Your task to perform on an android device: check android version Image 0: 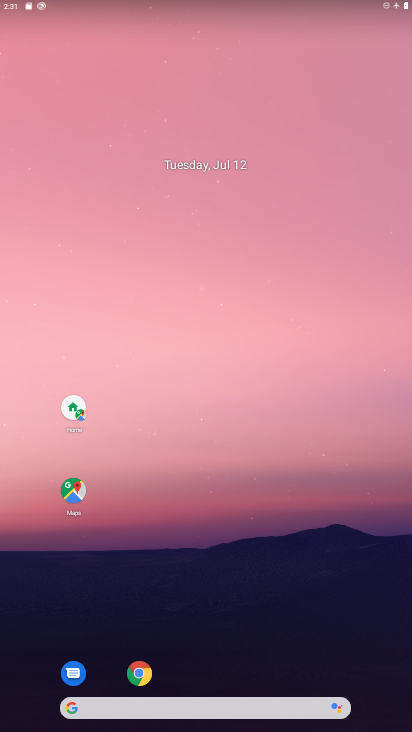
Step 0: drag from (232, 632) to (248, 279)
Your task to perform on an android device: check android version Image 1: 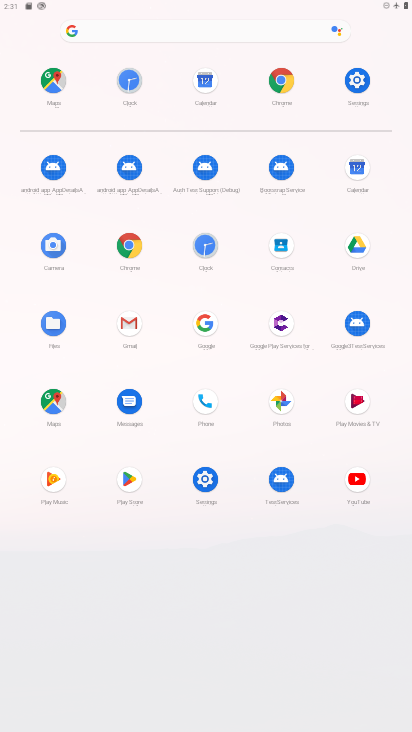
Step 1: click (354, 80)
Your task to perform on an android device: check android version Image 2: 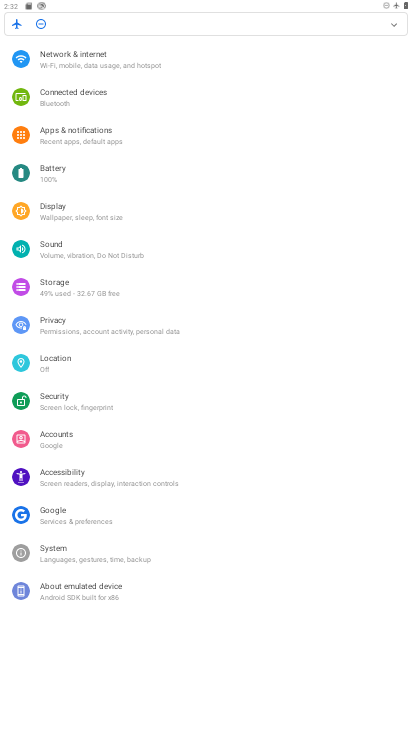
Step 2: click (109, 598)
Your task to perform on an android device: check android version Image 3: 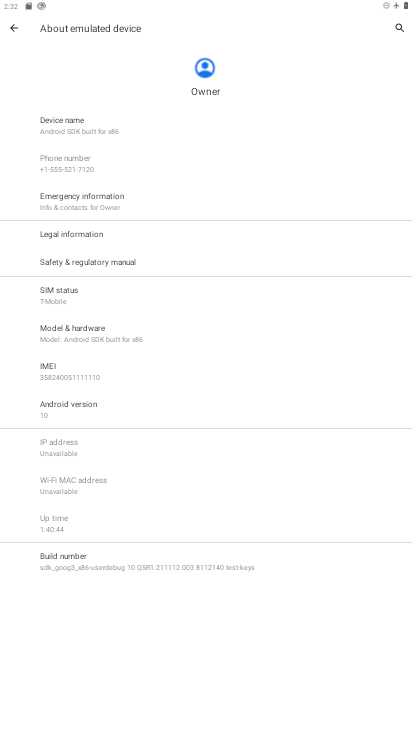
Step 3: click (78, 401)
Your task to perform on an android device: check android version Image 4: 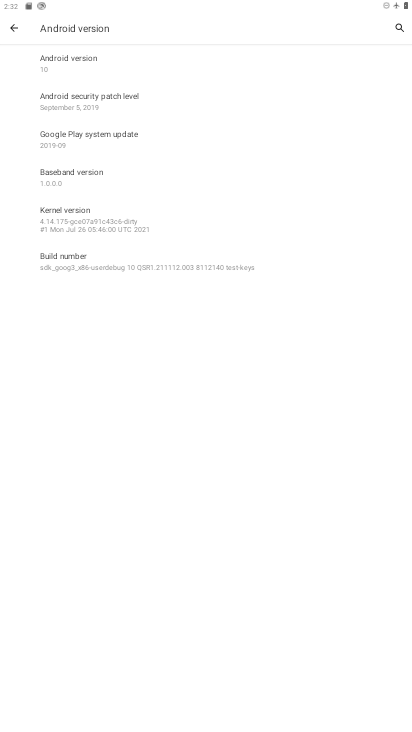
Step 4: task complete